Your task to perform on an android device: Open location settings Image 0: 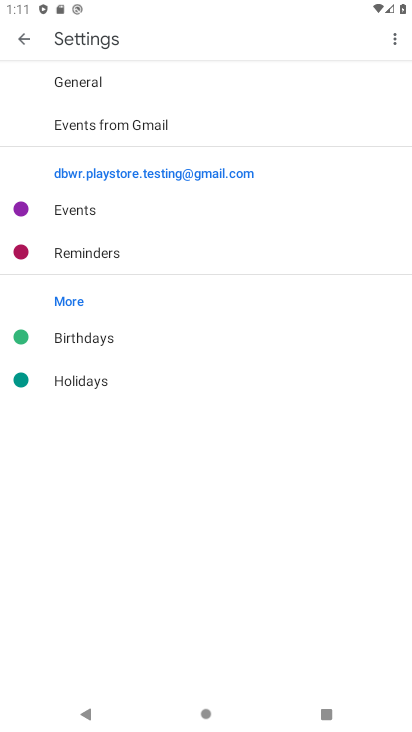
Step 0: press home button
Your task to perform on an android device: Open location settings Image 1: 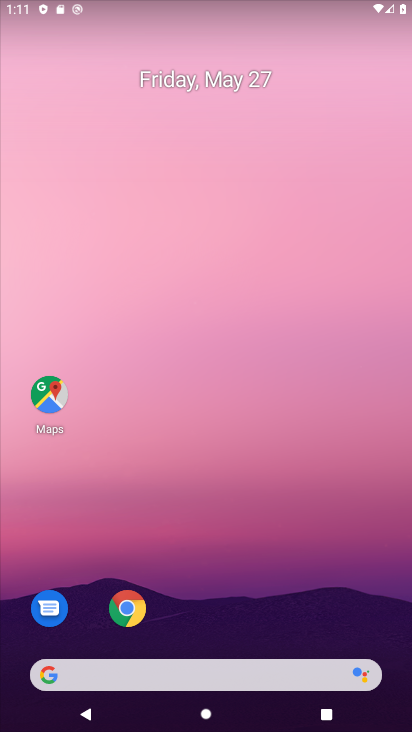
Step 1: drag from (159, 676) to (311, 153)
Your task to perform on an android device: Open location settings Image 2: 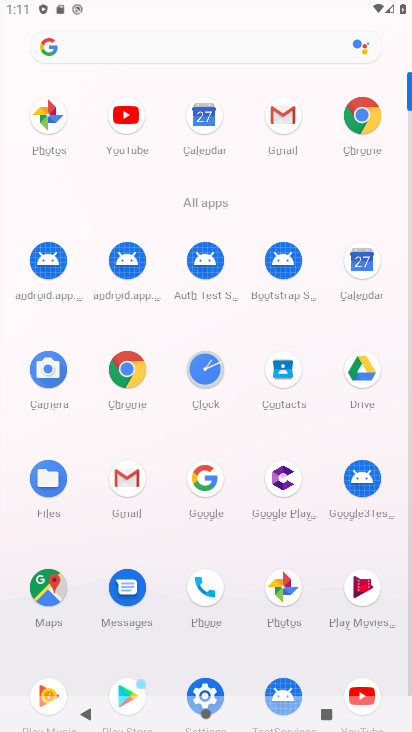
Step 2: drag from (174, 665) to (314, 283)
Your task to perform on an android device: Open location settings Image 3: 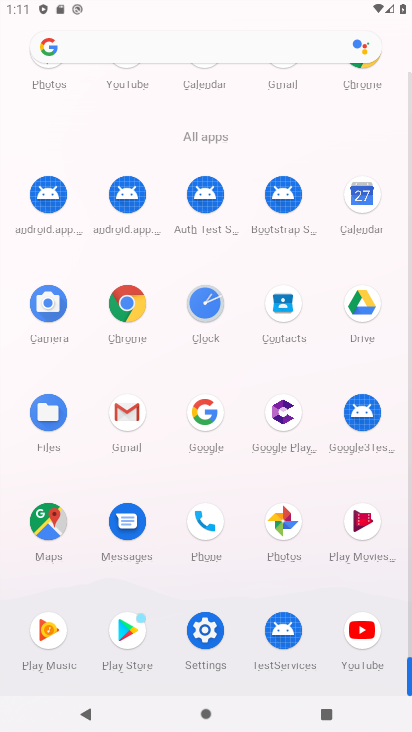
Step 3: click (210, 630)
Your task to perform on an android device: Open location settings Image 4: 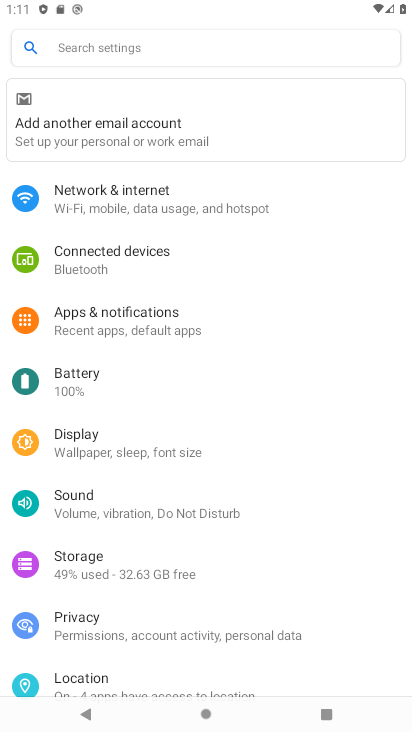
Step 4: drag from (172, 590) to (339, 181)
Your task to perform on an android device: Open location settings Image 5: 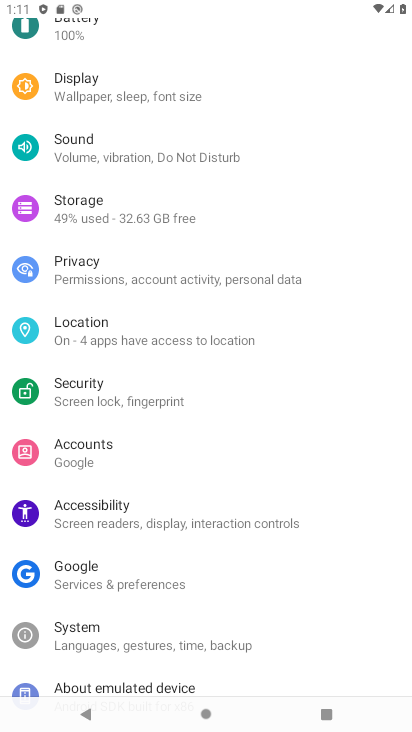
Step 5: click (135, 338)
Your task to perform on an android device: Open location settings Image 6: 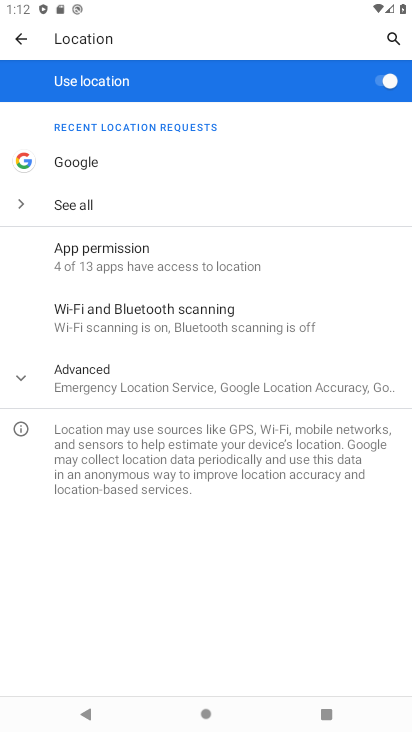
Step 6: task complete